Your task to perform on an android device: Show me productivity apps on the Play Store Image 0: 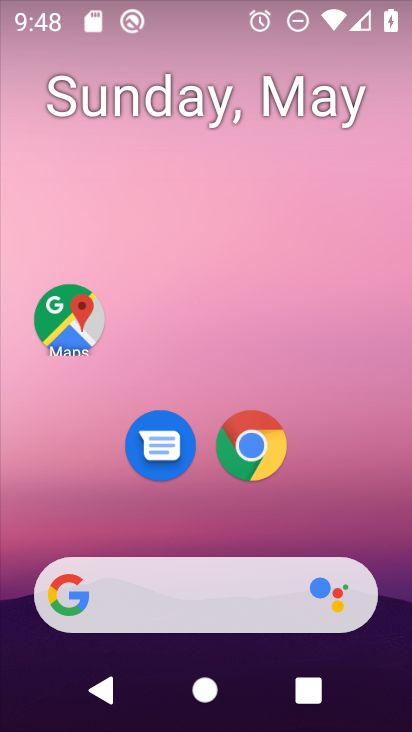
Step 0: drag from (195, 596) to (223, 311)
Your task to perform on an android device: Show me productivity apps on the Play Store Image 1: 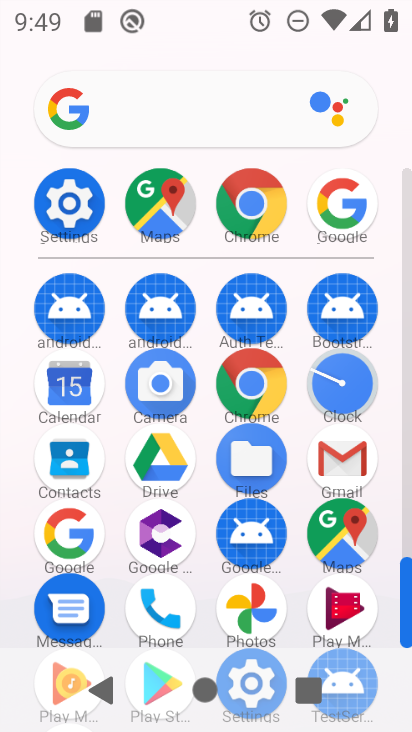
Step 1: drag from (161, 578) to (207, 248)
Your task to perform on an android device: Show me productivity apps on the Play Store Image 2: 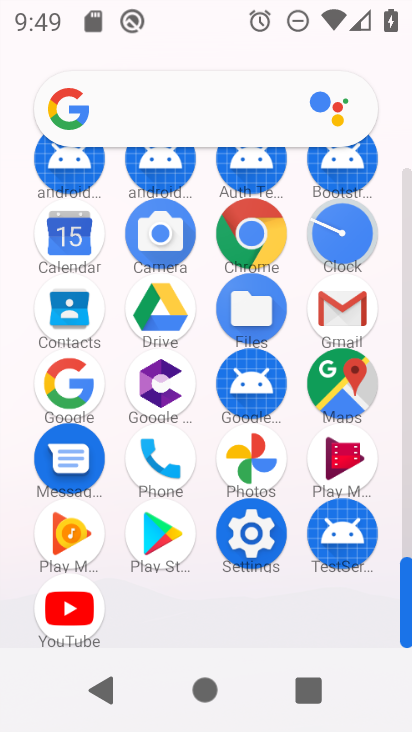
Step 2: click (158, 543)
Your task to perform on an android device: Show me productivity apps on the Play Store Image 3: 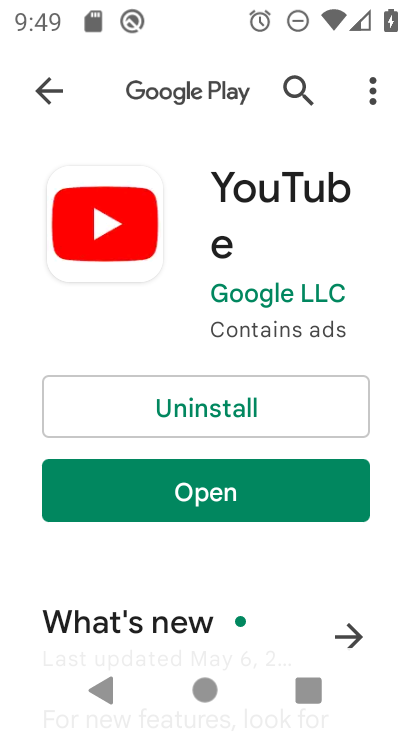
Step 3: click (47, 87)
Your task to perform on an android device: Show me productivity apps on the Play Store Image 4: 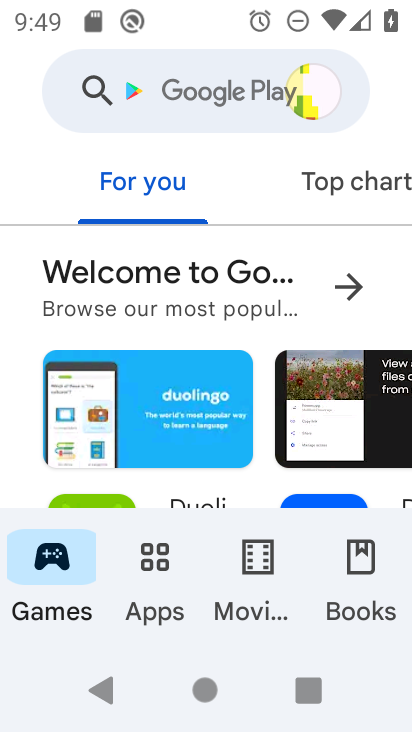
Step 4: click (205, 100)
Your task to perform on an android device: Show me productivity apps on the Play Store Image 5: 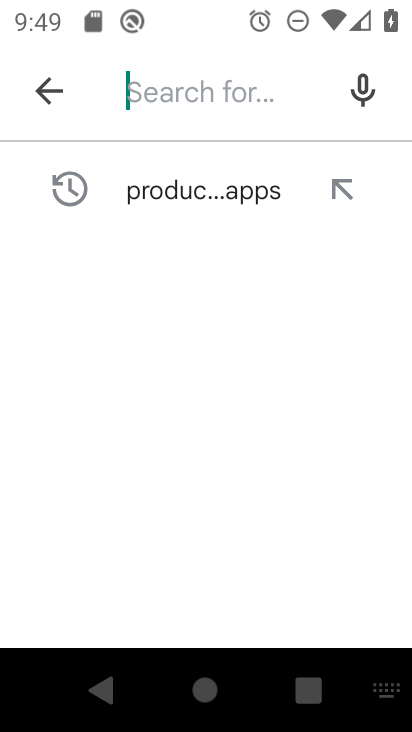
Step 5: click (226, 197)
Your task to perform on an android device: Show me productivity apps on the Play Store Image 6: 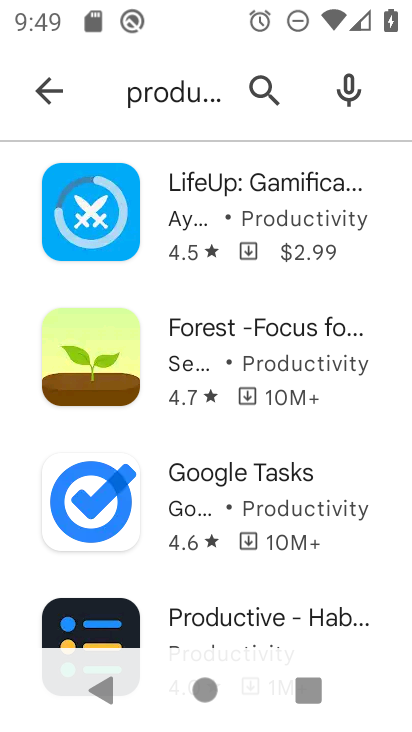
Step 6: task complete